Your task to perform on an android device: move an email to a new category in the gmail app Image 0: 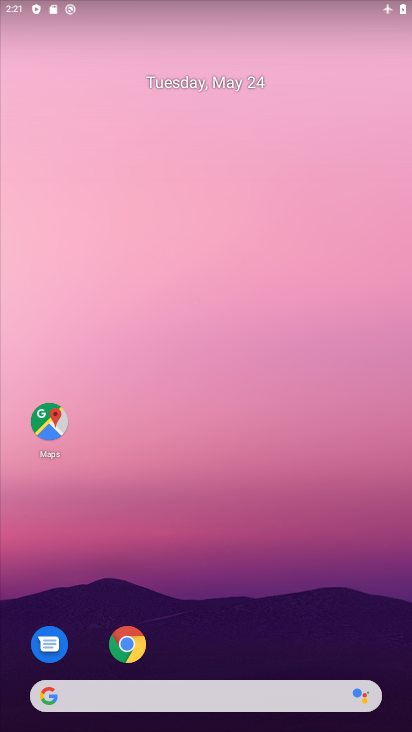
Step 0: drag from (239, 614) to (257, 102)
Your task to perform on an android device: move an email to a new category in the gmail app Image 1: 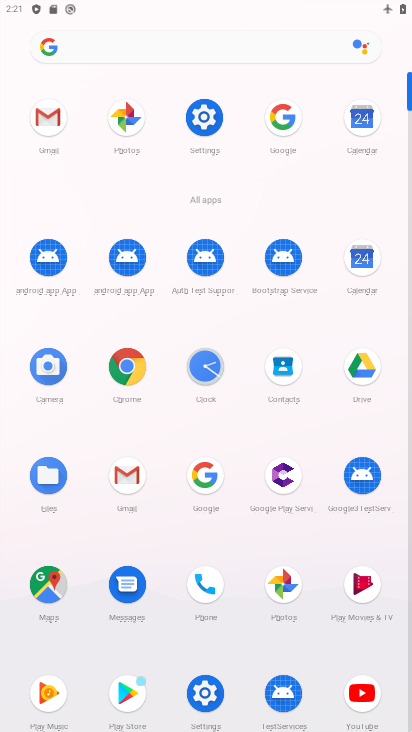
Step 1: click (128, 474)
Your task to perform on an android device: move an email to a new category in the gmail app Image 2: 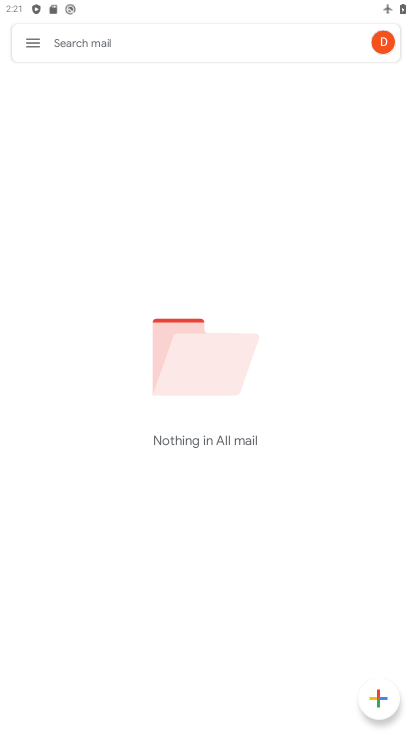
Step 2: click (30, 42)
Your task to perform on an android device: move an email to a new category in the gmail app Image 3: 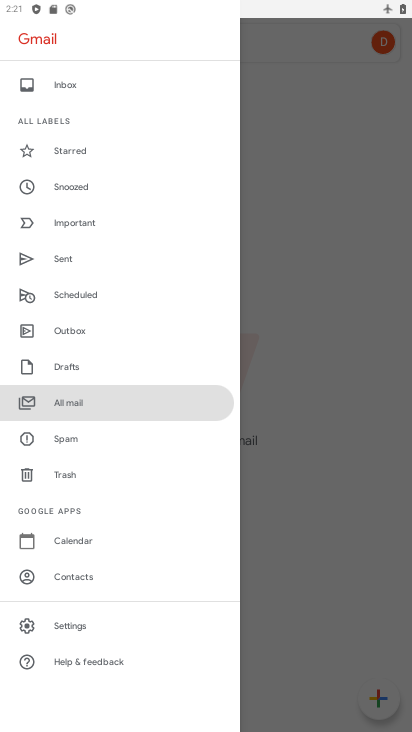
Step 3: click (271, 394)
Your task to perform on an android device: move an email to a new category in the gmail app Image 4: 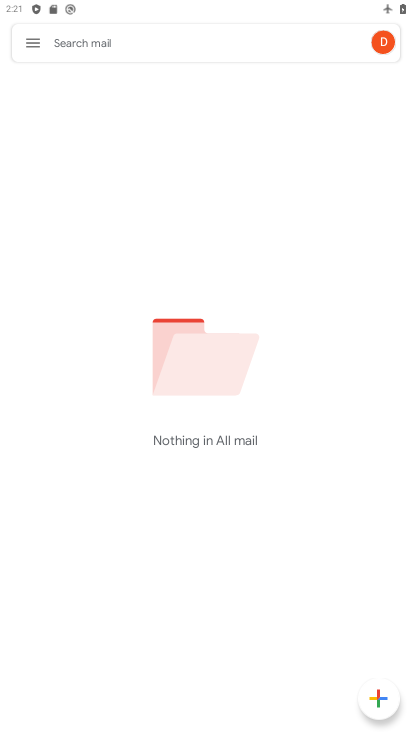
Step 4: task complete